Your task to perform on an android device: Go to eBay Image 0: 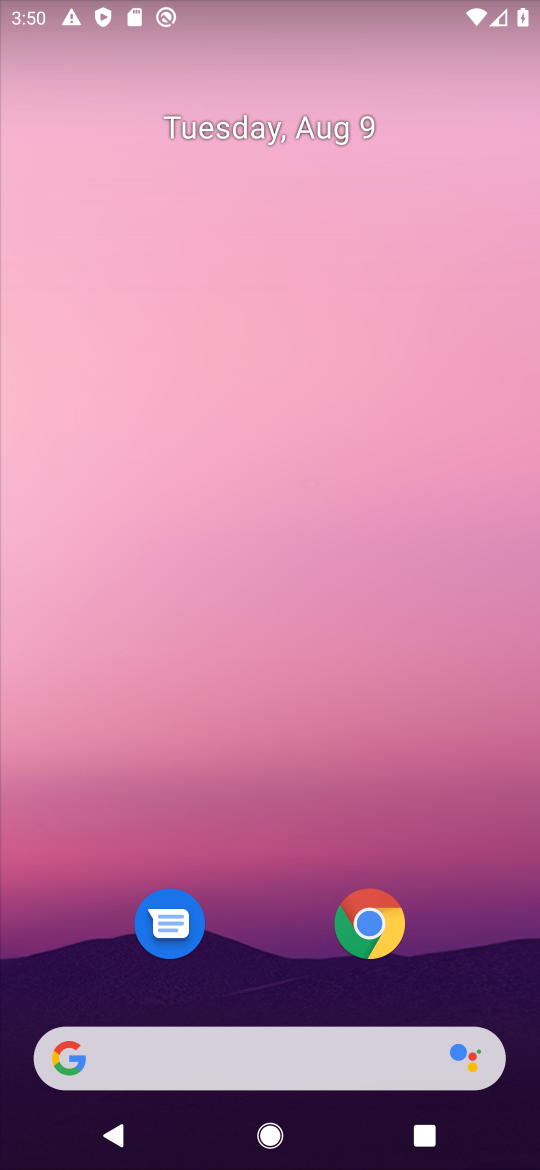
Step 0: press back button
Your task to perform on an android device: Go to eBay Image 1: 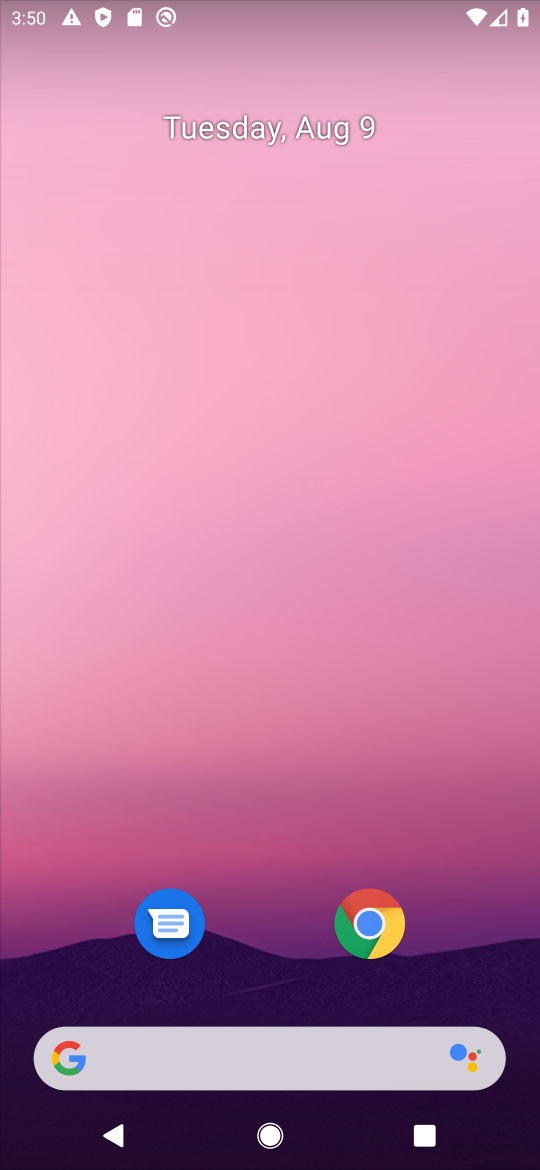
Step 1: click (198, 721)
Your task to perform on an android device: Go to eBay Image 2: 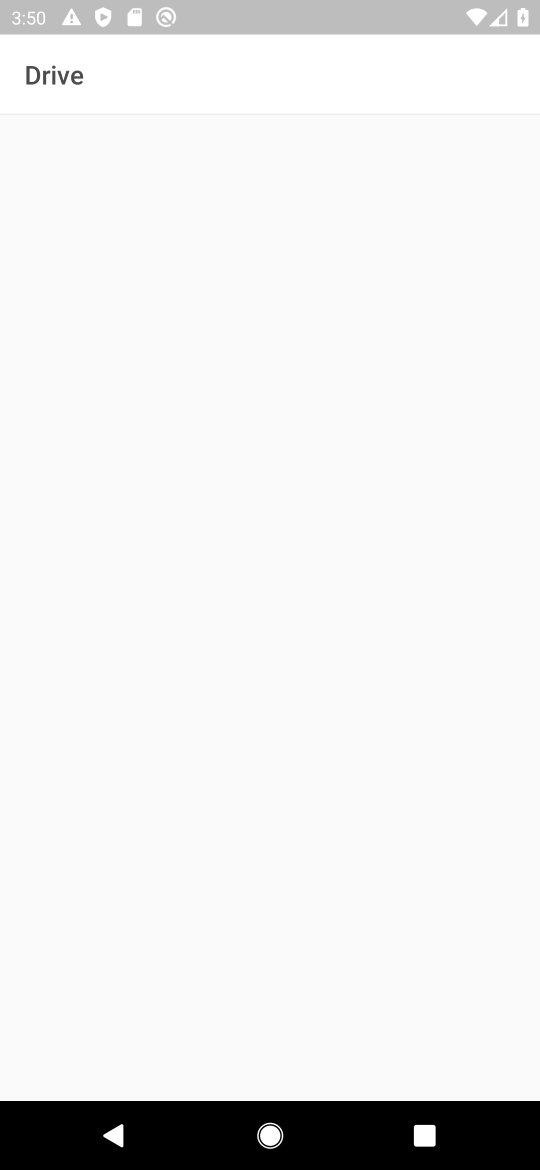
Step 2: drag from (38, 26) to (59, 549)
Your task to perform on an android device: Go to eBay Image 3: 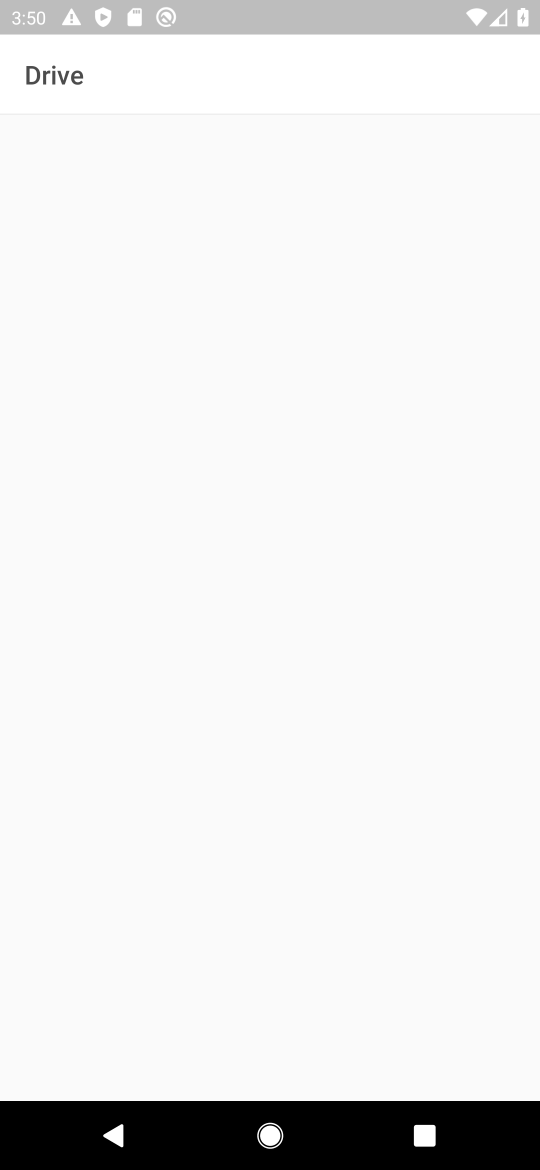
Step 3: press back button
Your task to perform on an android device: Go to eBay Image 4: 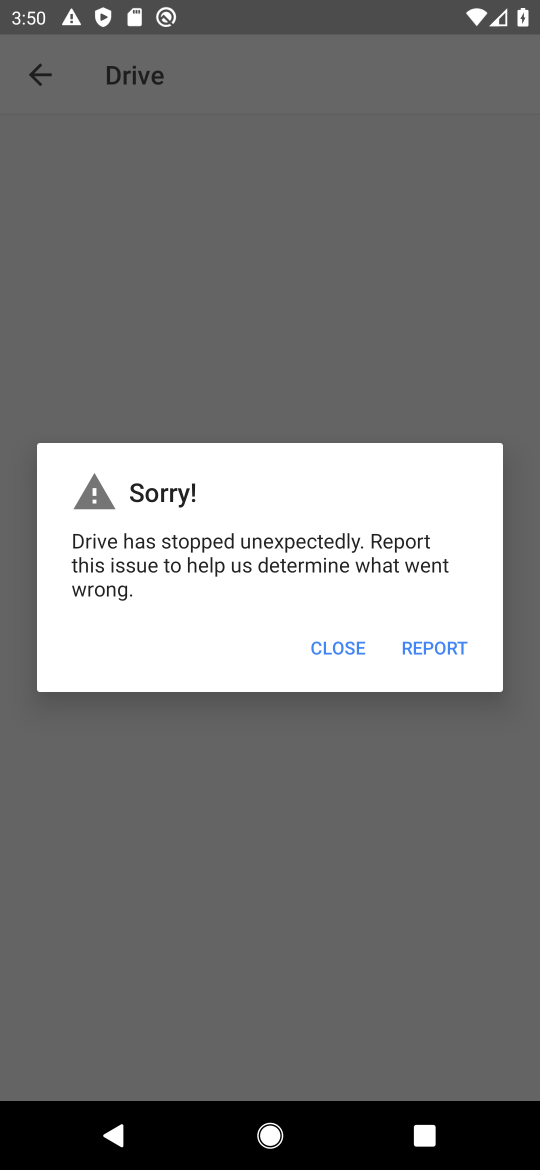
Step 4: press back button
Your task to perform on an android device: Go to eBay Image 5: 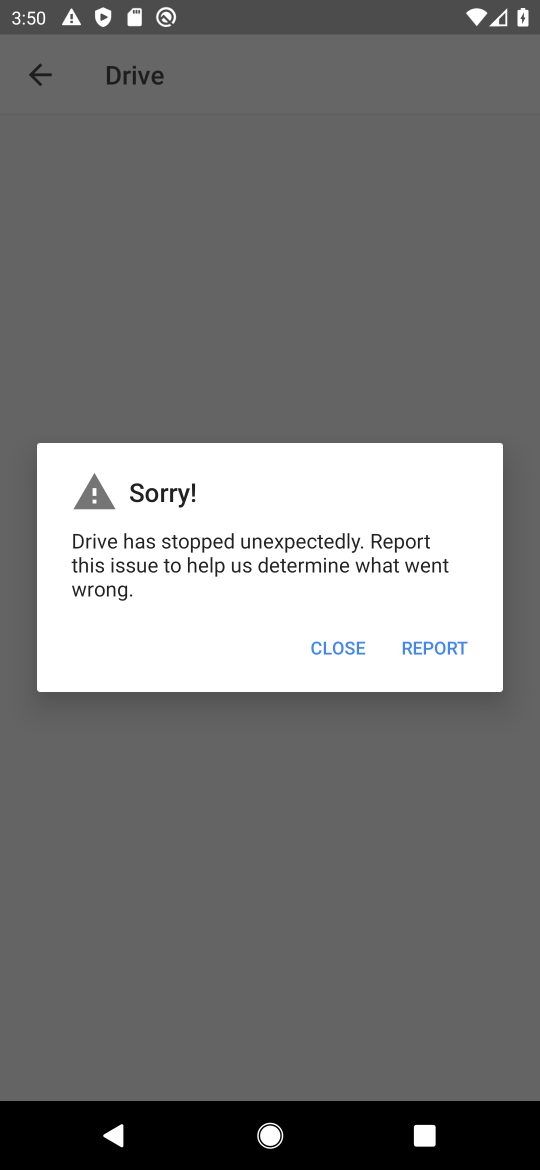
Step 5: press home button
Your task to perform on an android device: Go to eBay Image 6: 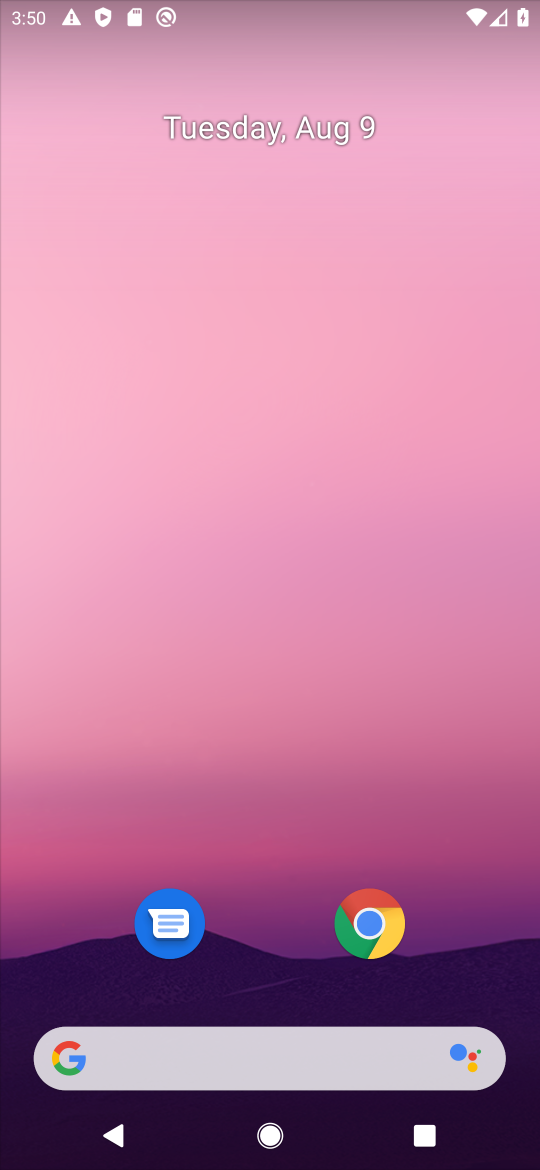
Step 6: click (367, 921)
Your task to perform on an android device: Go to eBay Image 7: 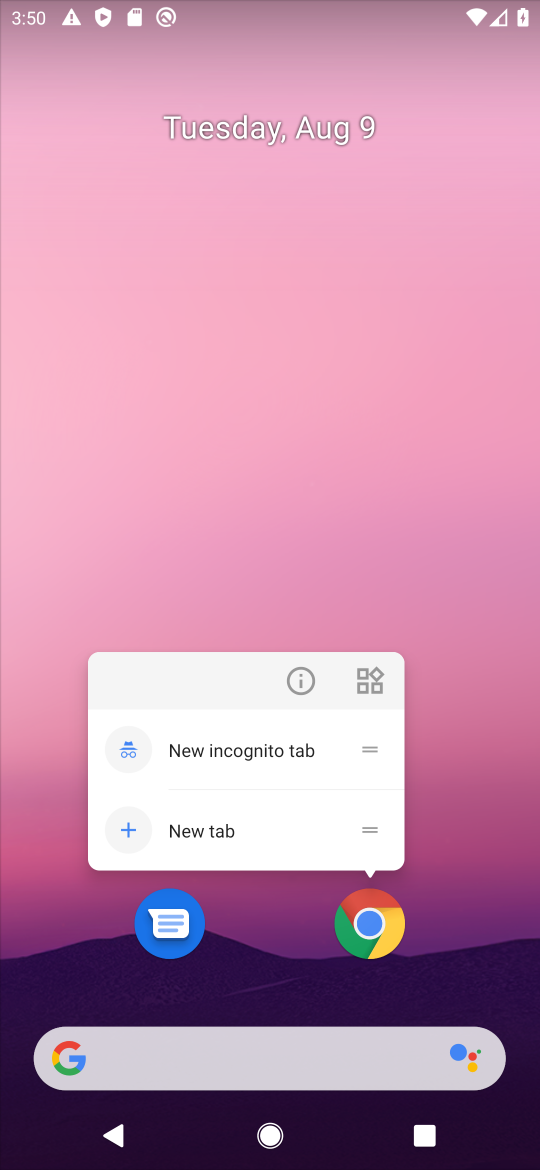
Step 7: click (366, 923)
Your task to perform on an android device: Go to eBay Image 8: 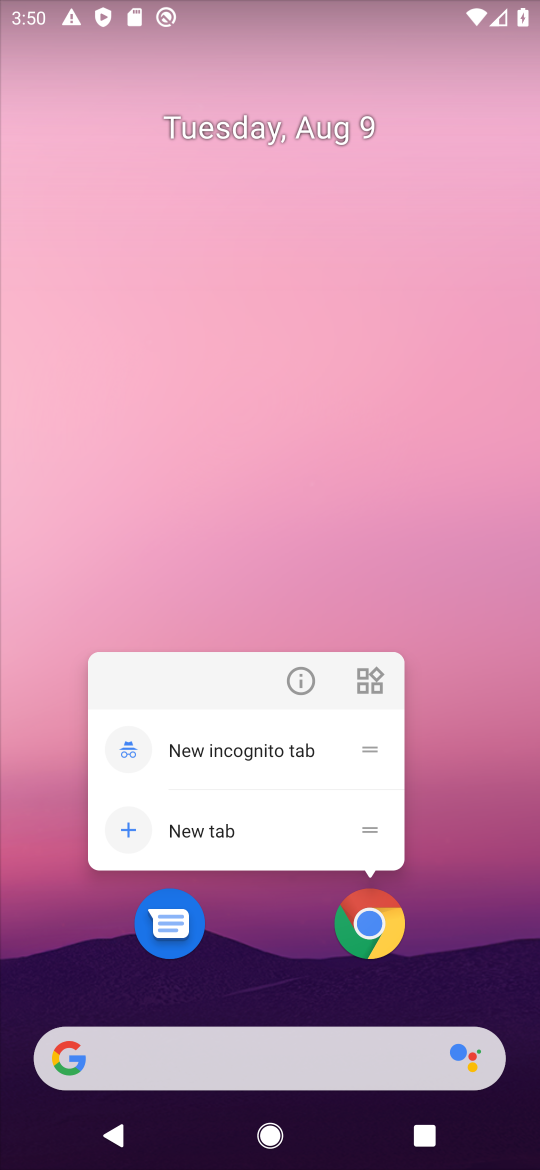
Step 8: click (370, 930)
Your task to perform on an android device: Go to eBay Image 9: 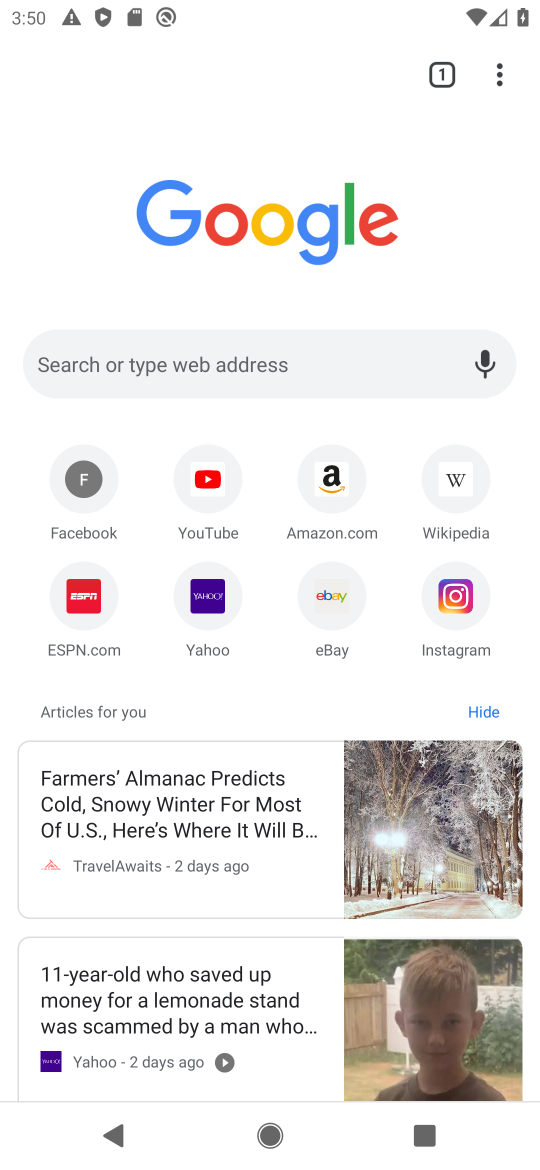
Step 9: click (327, 596)
Your task to perform on an android device: Go to eBay Image 10: 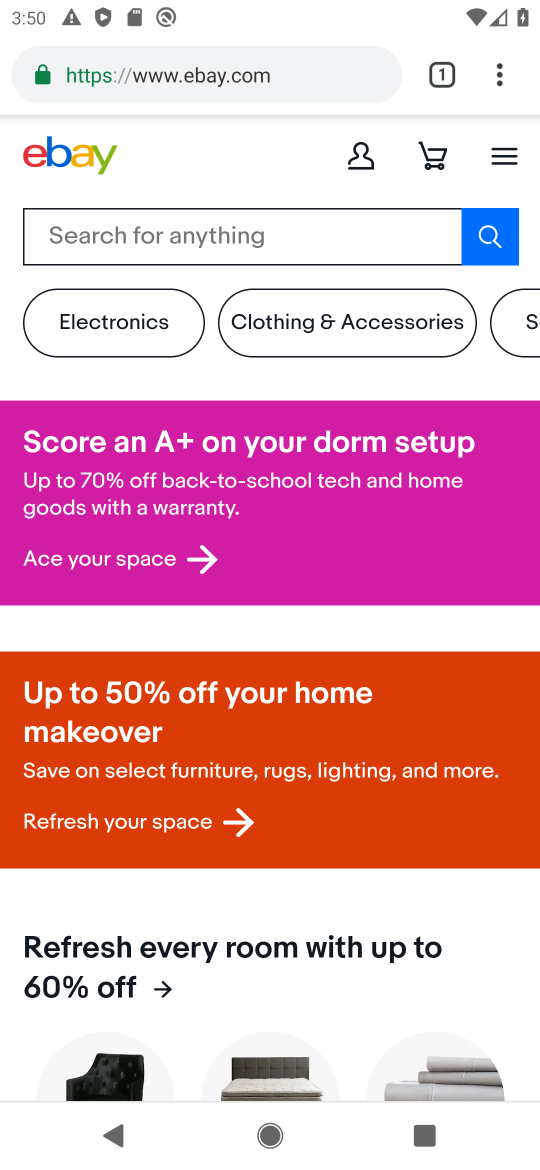
Step 10: task complete